Your task to perform on an android device: open chrome and create a bookmark for the current page Image 0: 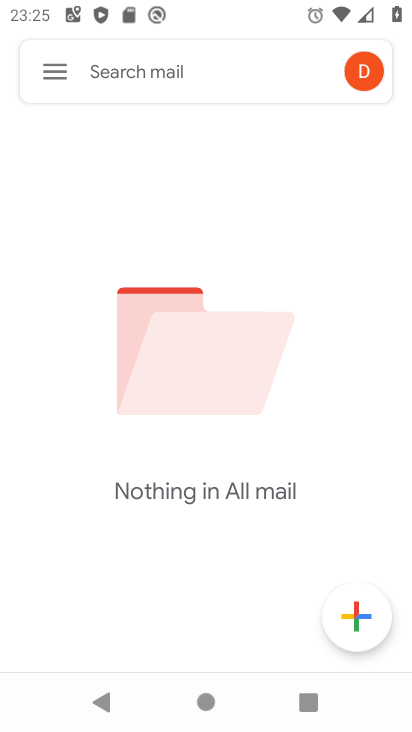
Step 0: press home button
Your task to perform on an android device: open chrome and create a bookmark for the current page Image 1: 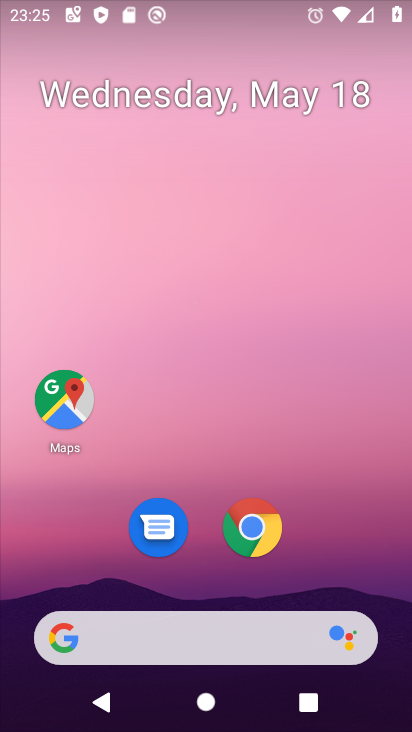
Step 1: click (243, 541)
Your task to perform on an android device: open chrome and create a bookmark for the current page Image 2: 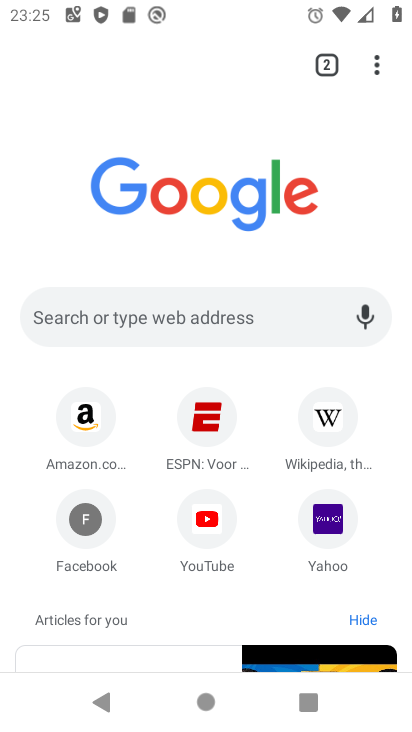
Step 2: click (369, 57)
Your task to perform on an android device: open chrome and create a bookmark for the current page Image 3: 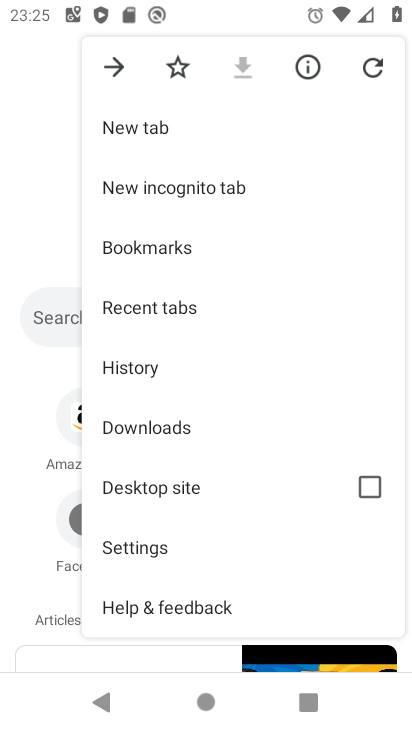
Step 3: click (181, 254)
Your task to perform on an android device: open chrome and create a bookmark for the current page Image 4: 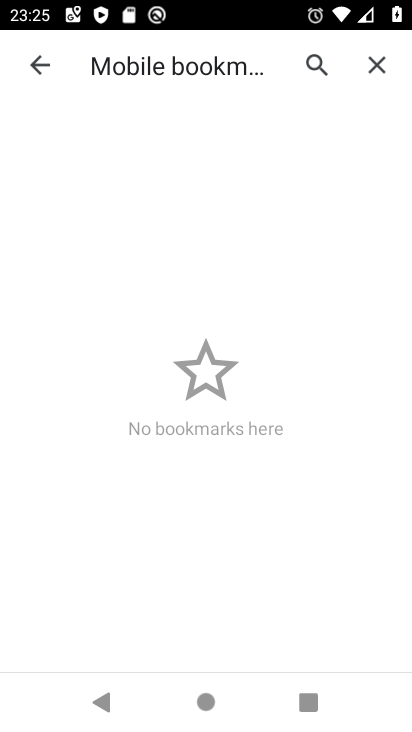
Step 4: click (35, 58)
Your task to perform on an android device: open chrome and create a bookmark for the current page Image 5: 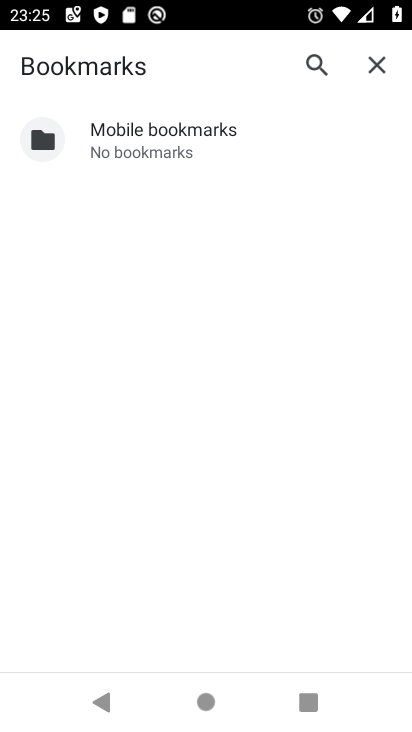
Step 5: click (102, 713)
Your task to perform on an android device: open chrome and create a bookmark for the current page Image 6: 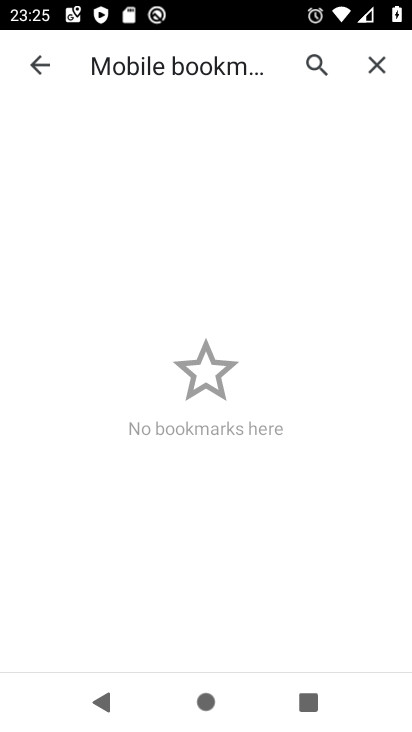
Step 6: click (43, 76)
Your task to perform on an android device: open chrome and create a bookmark for the current page Image 7: 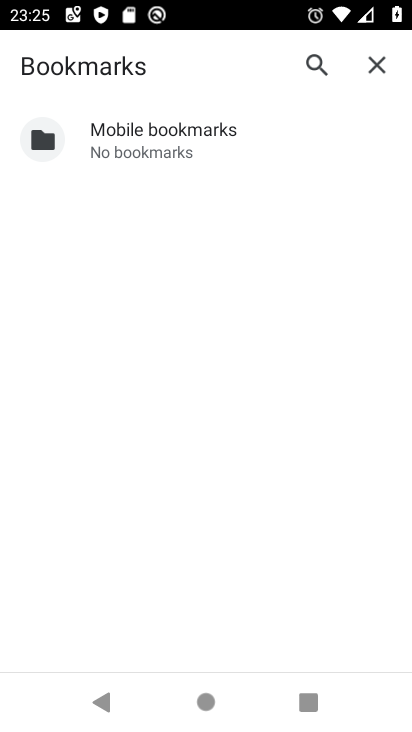
Step 7: click (379, 60)
Your task to perform on an android device: open chrome and create a bookmark for the current page Image 8: 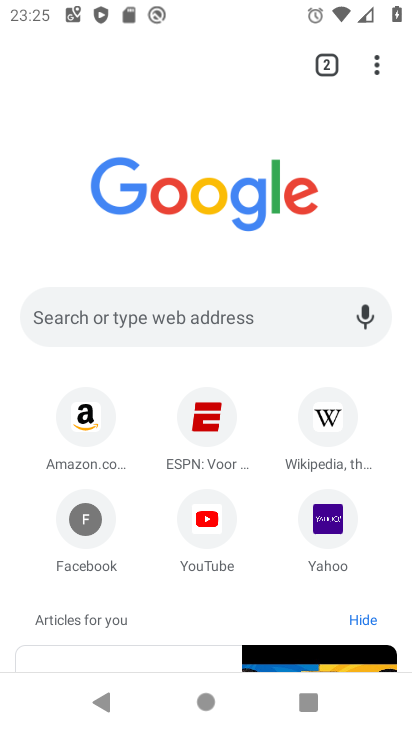
Step 8: click (208, 303)
Your task to perform on an android device: open chrome and create a bookmark for the current page Image 9: 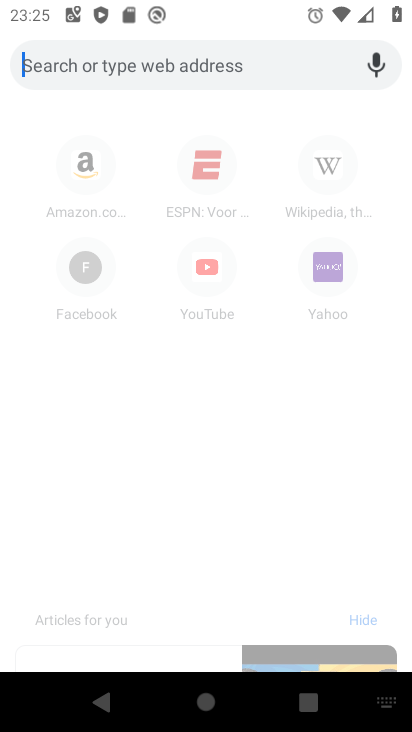
Step 9: type "rss"
Your task to perform on an android device: open chrome and create a bookmark for the current page Image 10: 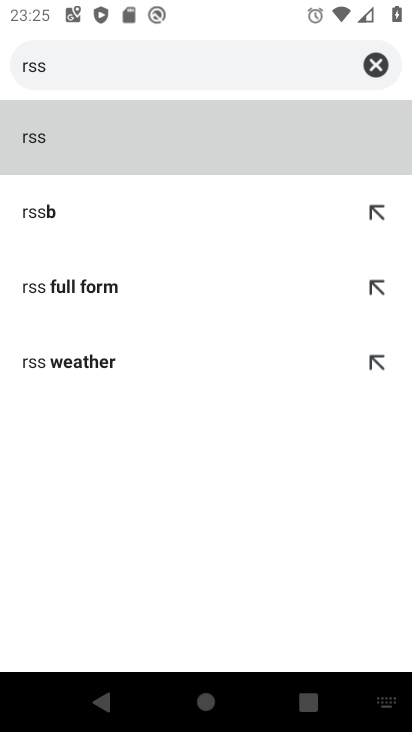
Step 10: click (91, 145)
Your task to perform on an android device: open chrome and create a bookmark for the current page Image 11: 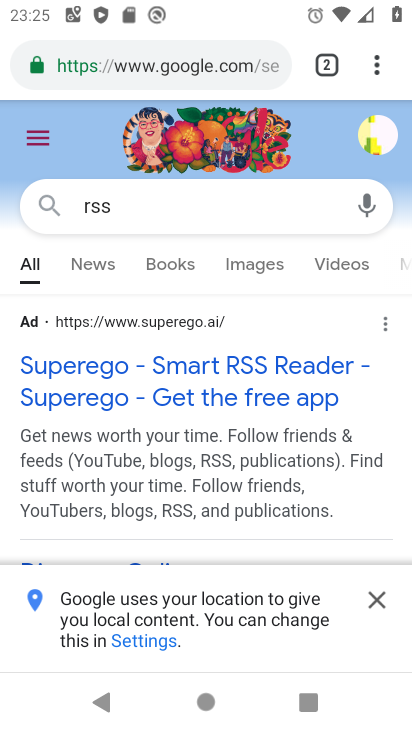
Step 11: click (159, 386)
Your task to perform on an android device: open chrome and create a bookmark for the current page Image 12: 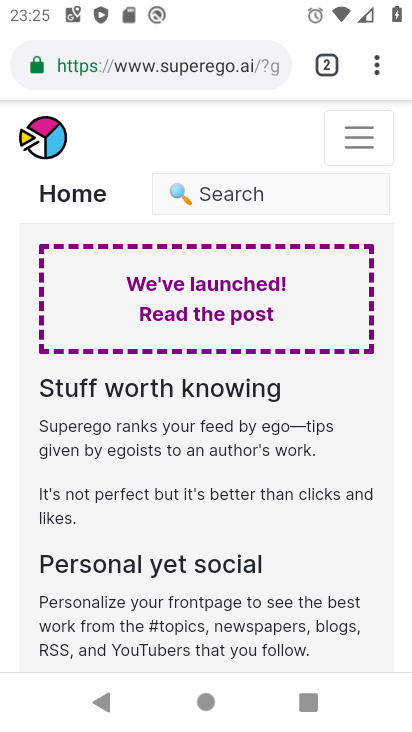
Step 12: click (374, 62)
Your task to perform on an android device: open chrome and create a bookmark for the current page Image 13: 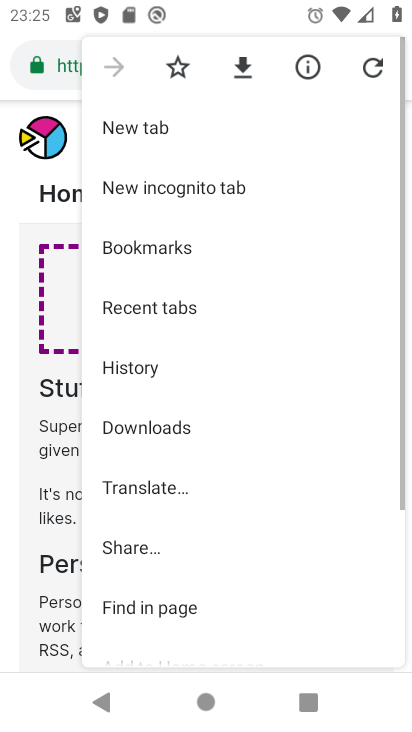
Step 13: click (177, 66)
Your task to perform on an android device: open chrome and create a bookmark for the current page Image 14: 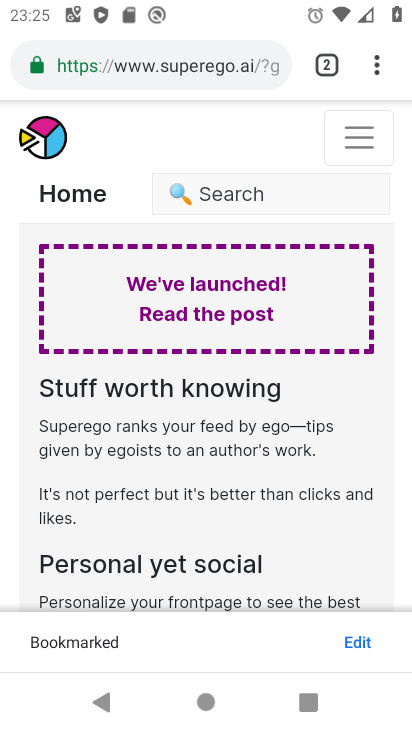
Step 14: task complete